Your task to perform on an android device: move a message to another label in the gmail app Image 0: 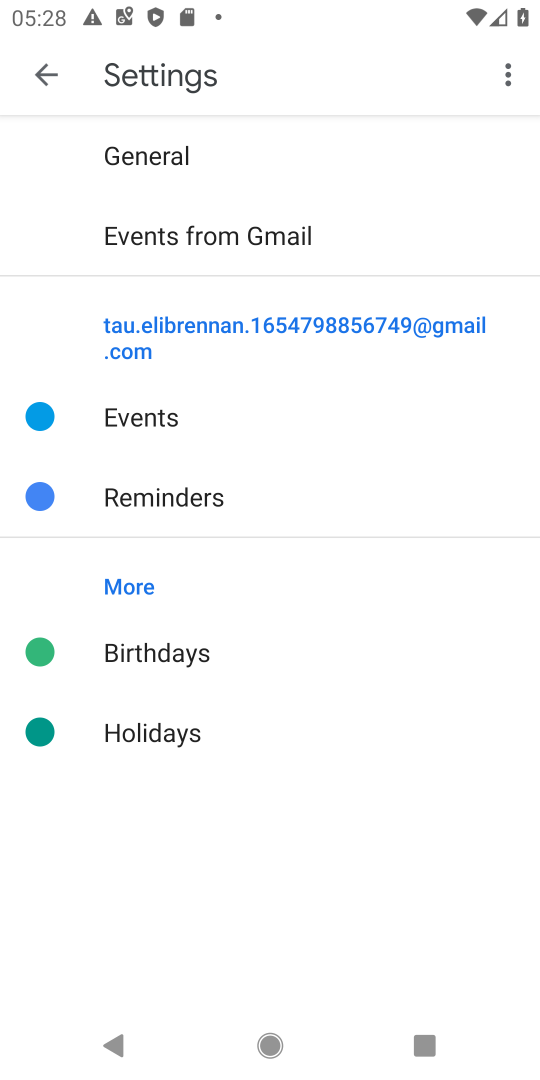
Step 0: press home button
Your task to perform on an android device: move a message to another label in the gmail app Image 1: 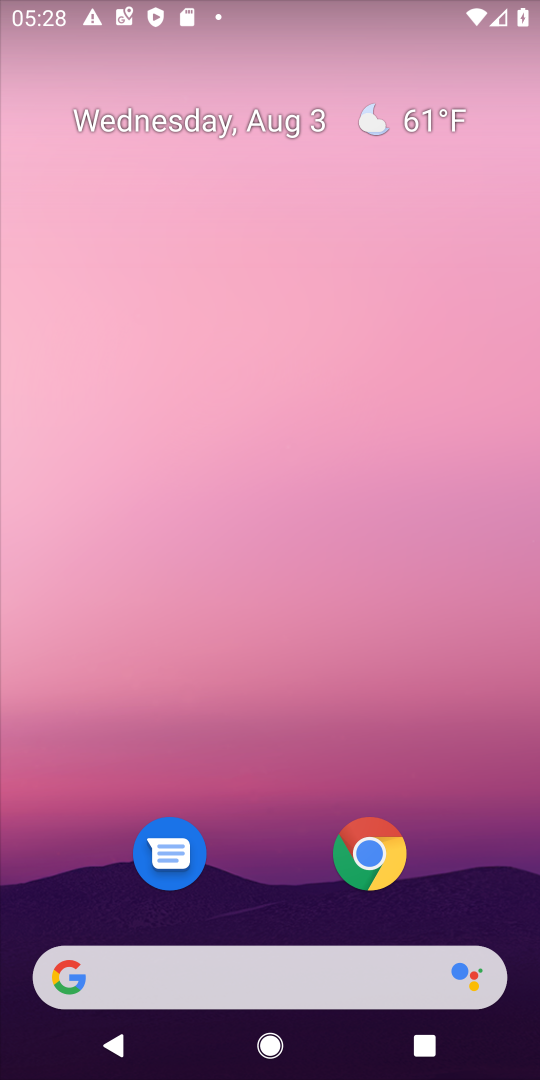
Step 1: drag from (255, 768) to (253, 150)
Your task to perform on an android device: move a message to another label in the gmail app Image 2: 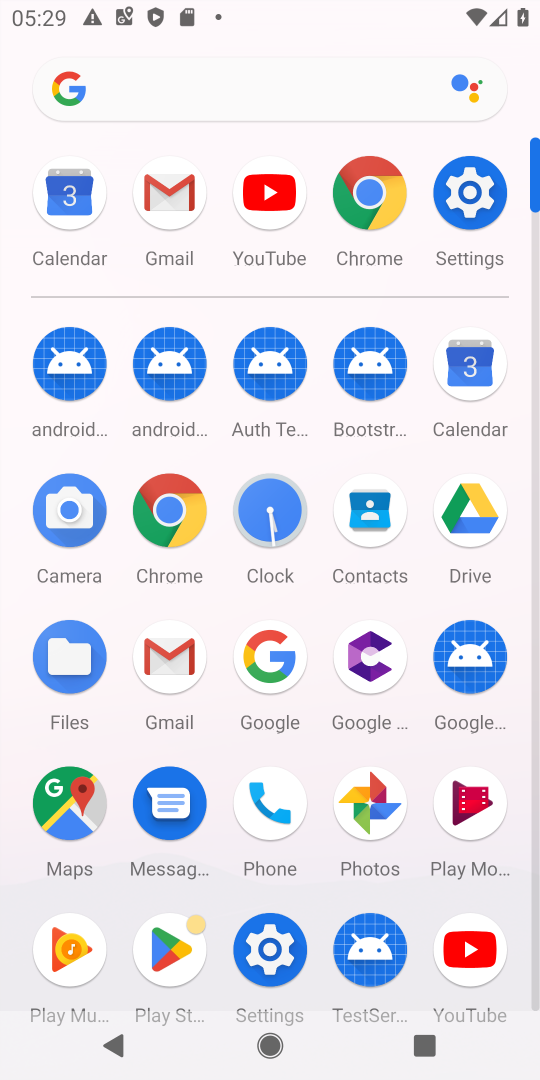
Step 2: click (157, 509)
Your task to perform on an android device: move a message to another label in the gmail app Image 3: 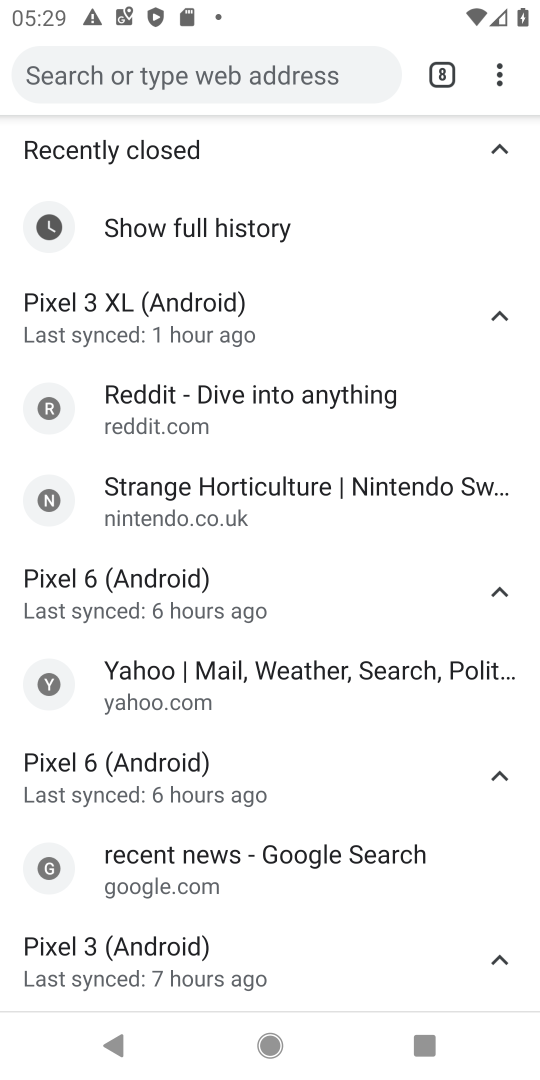
Step 3: press home button
Your task to perform on an android device: move a message to another label in the gmail app Image 4: 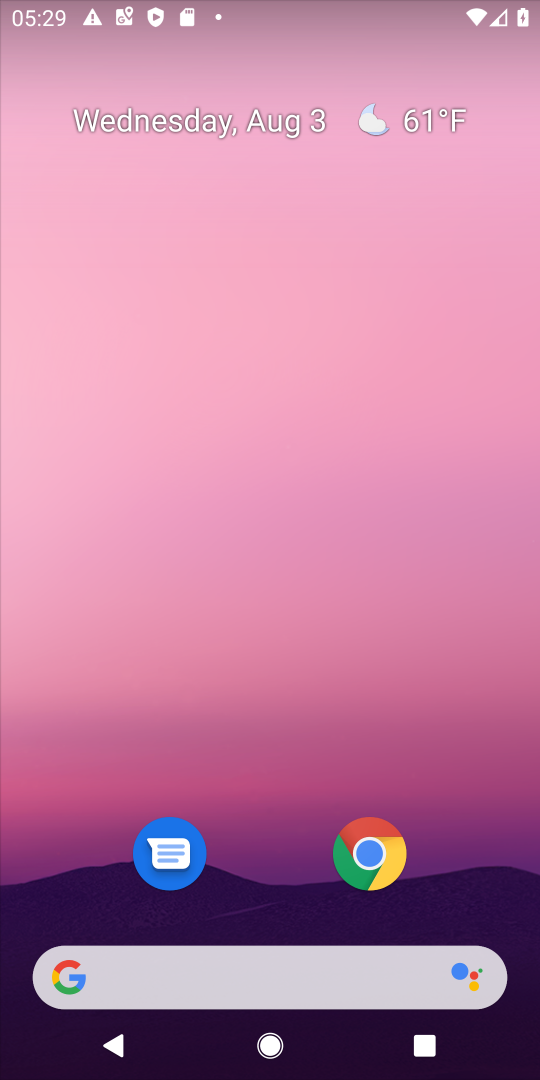
Step 4: drag from (261, 867) to (264, 188)
Your task to perform on an android device: move a message to another label in the gmail app Image 5: 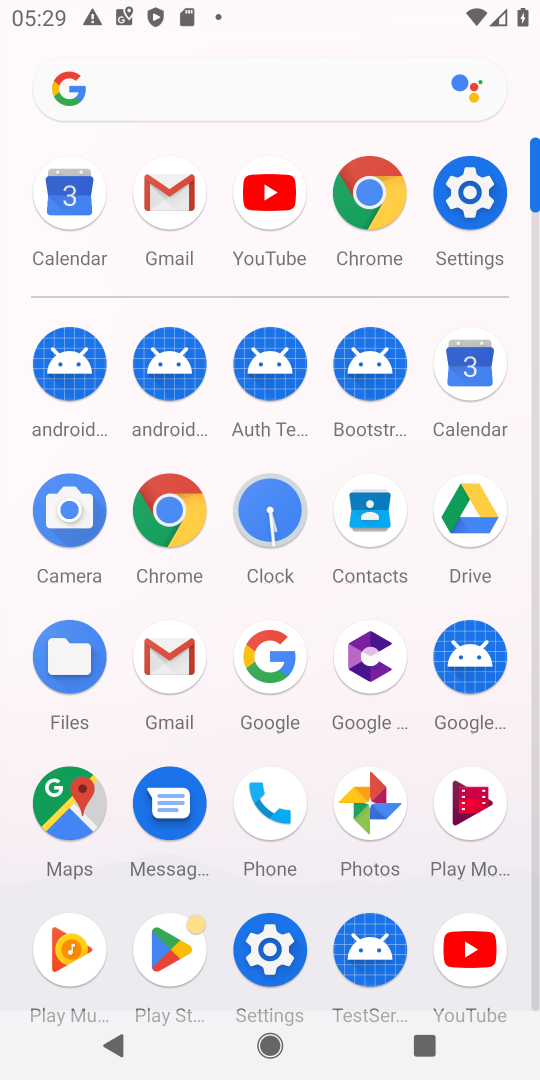
Step 5: click (175, 655)
Your task to perform on an android device: move a message to another label in the gmail app Image 6: 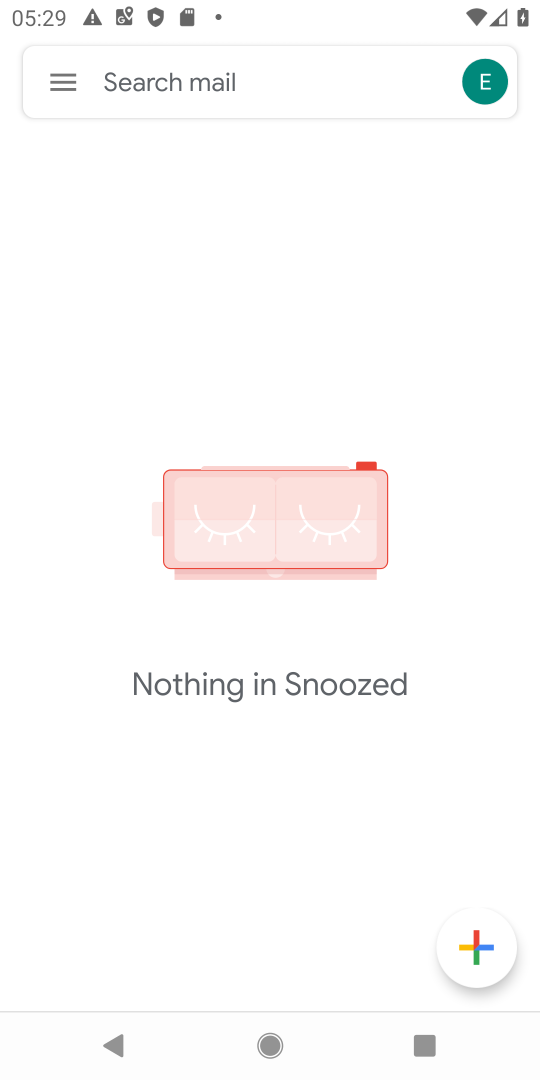
Step 6: click (70, 88)
Your task to perform on an android device: move a message to another label in the gmail app Image 7: 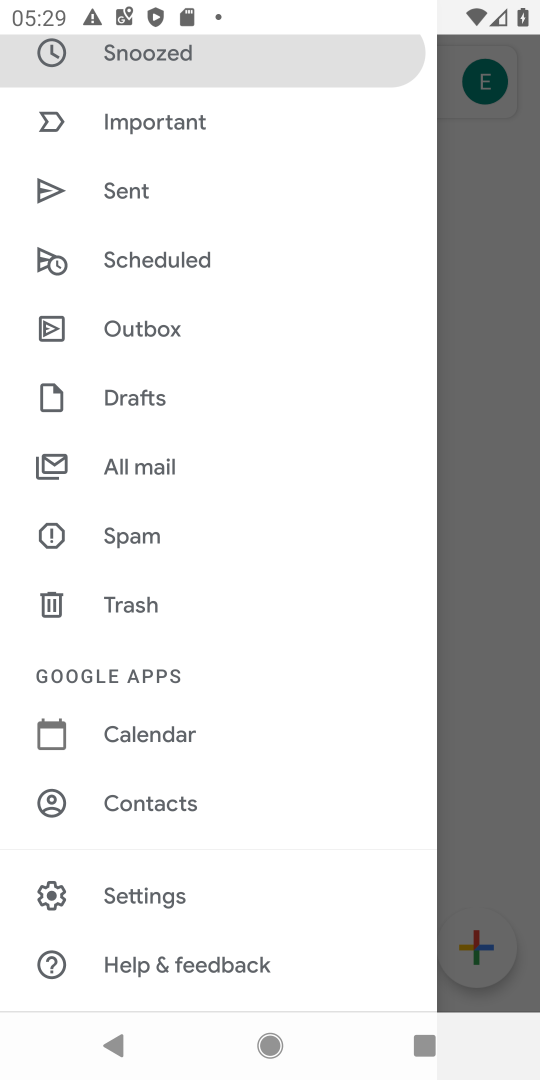
Step 7: drag from (118, 117) to (121, 690)
Your task to perform on an android device: move a message to another label in the gmail app Image 8: 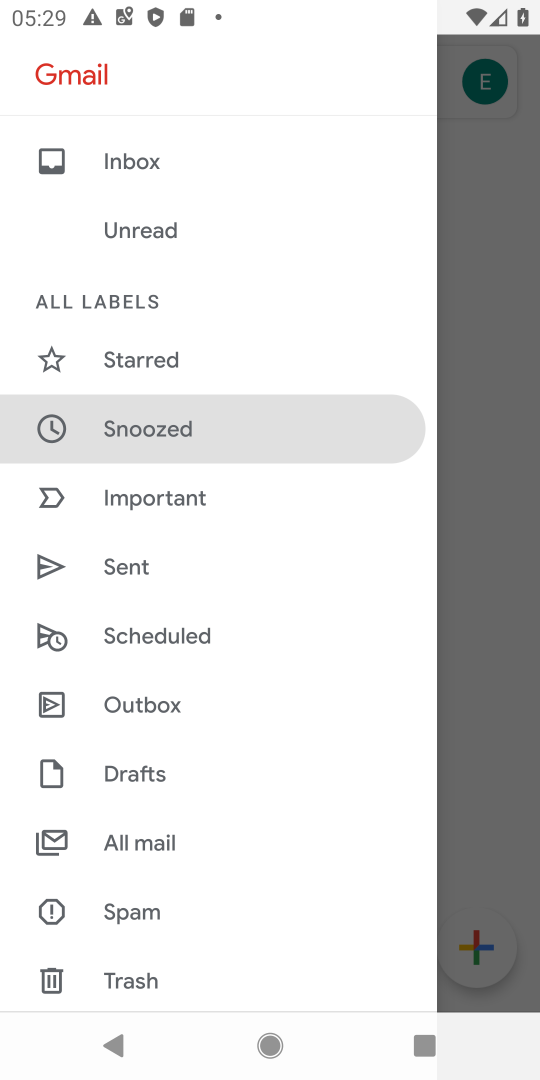
Step 8: drag from (164, 220) to (170, 869)
Your task to perform on an android device: move a message to another label in the gmail app Image 9: 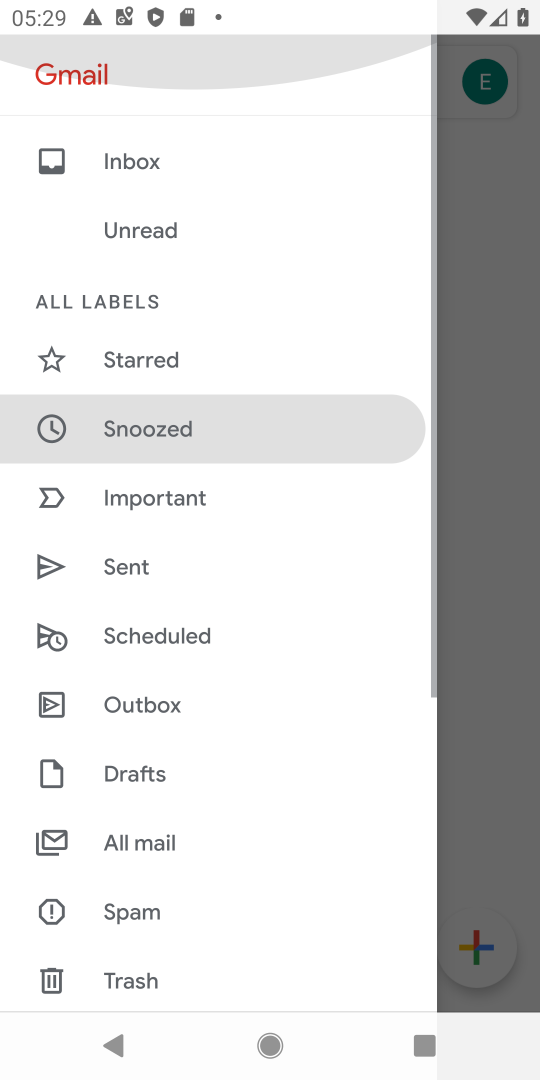
Step 9: click (140, 162)
Your task to perform on an android device: move a message to another label in the gmail app Image 10: 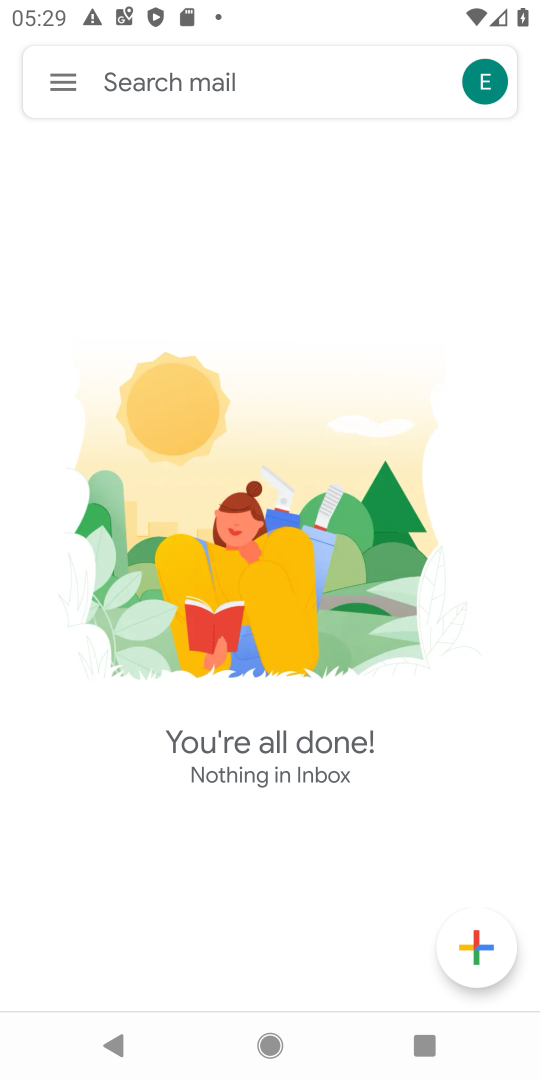
Step 10: task complete